Your task to perform on an android device: Go to eBay Image 0: 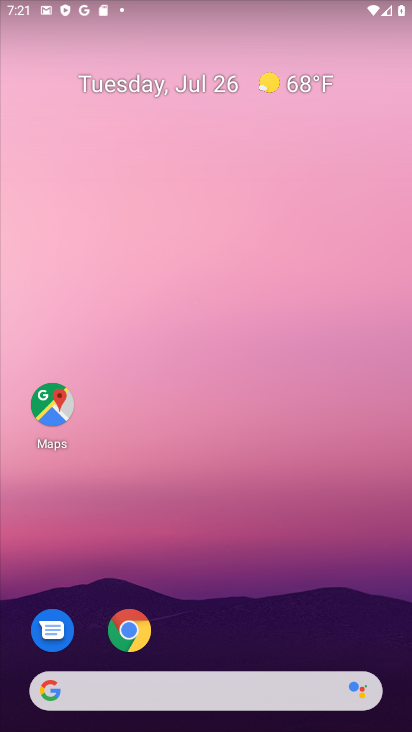
Step 0: drag from (370, 622) to (370, 131)
Your task to perform on an android device: Go to eBay Image 1: 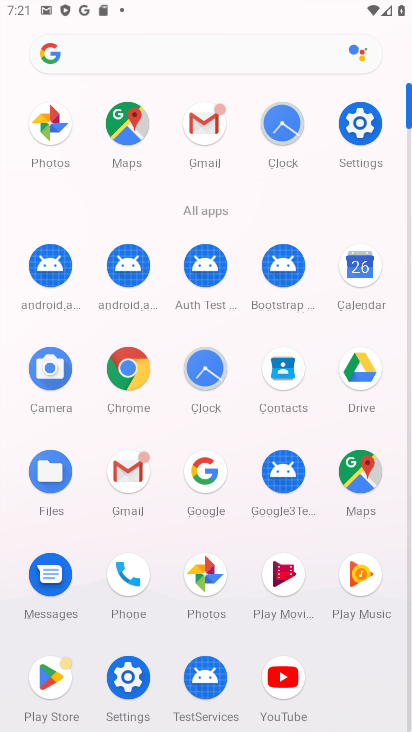
Step 1: click (126, 374)
Your task to perform on an android device: Go to eBay Image 2: 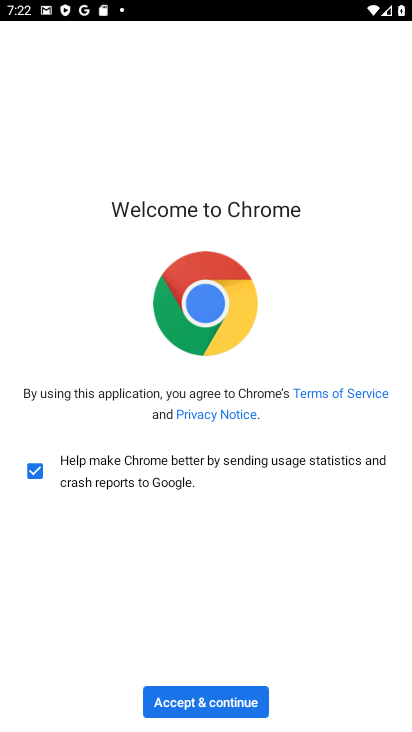
Step 2: click (191, 700)
Your task to perform on an android device: Go to eBay Image 3: 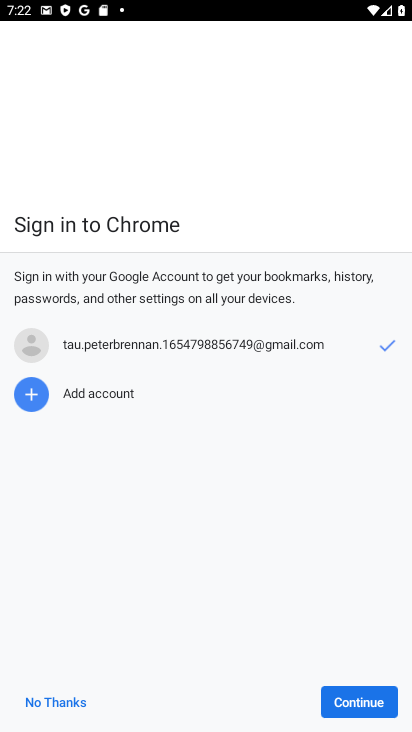
Step 3: click (344, 705)
Your task to perform on an android device: Go to eBay Image 4: 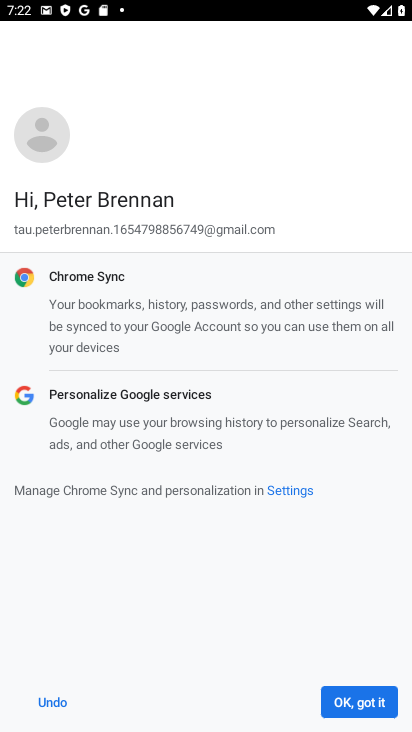
Step 4: click (344, 705)
Your task to perform on an android device: Go to eBay Image 5: 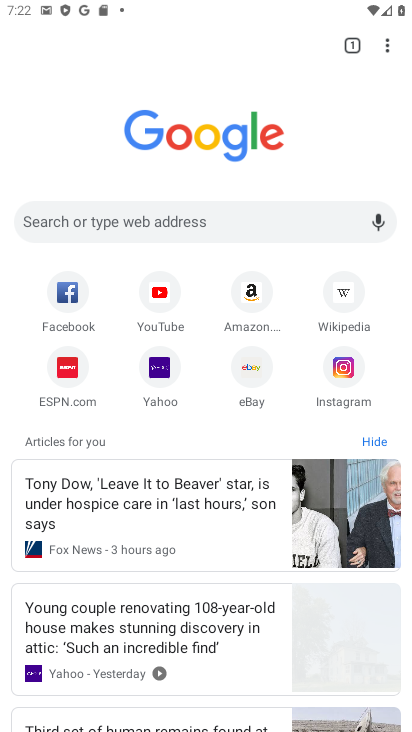
Step 5: click (215, 214)
Your task to perform on an android device: Go to eBay Image 6: 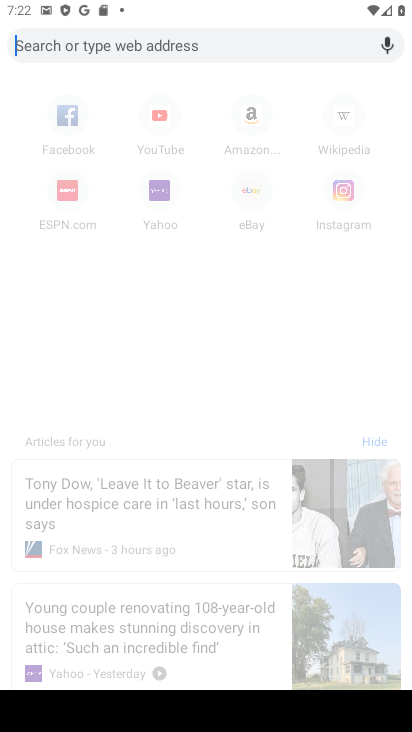
Step 6: type "ebahy "
Your task to perform on an android device: Go to eBay Image 7: 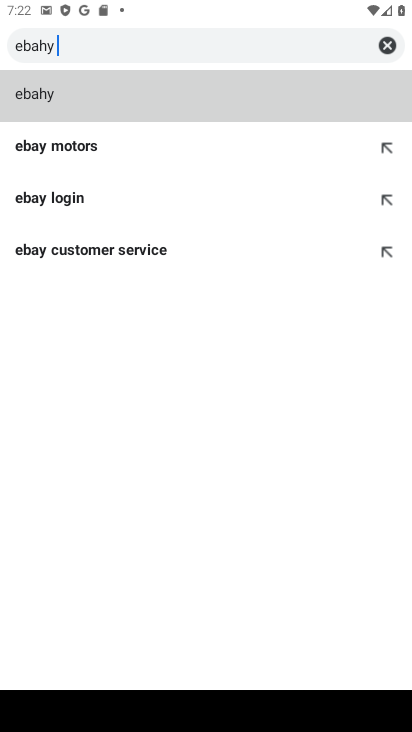
Step 7: click (199, 95)
Your task to perform on an android device: Go to eBay Image 8: 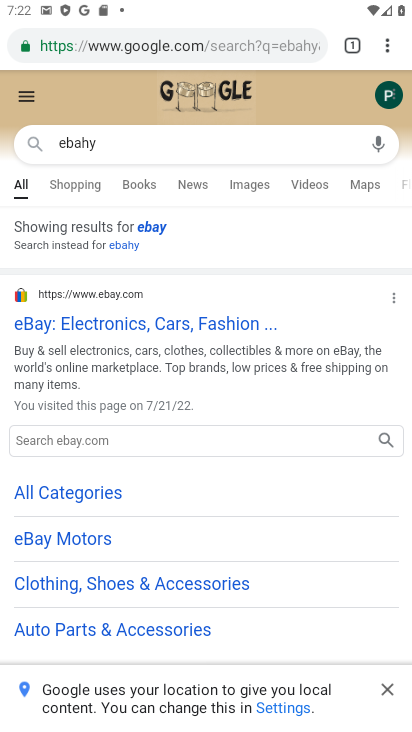
Step 8: task complete